Your task to perform on an android device: search for starred emails in the gmail app Image 0: 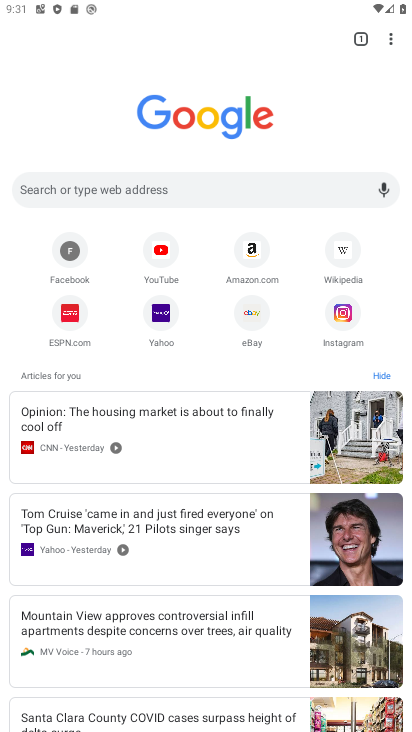
Step 0: press home button
Your task to perform on an android device: search for starred emails in the gmail app Image 1: 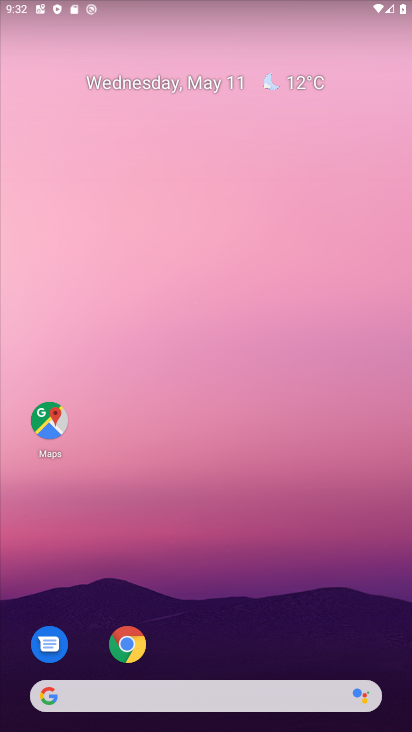
Step 1: drag from (281, 596) to (283, 339)
Your task to perform on an android device: search for starred emails in the gmail app Image 2: 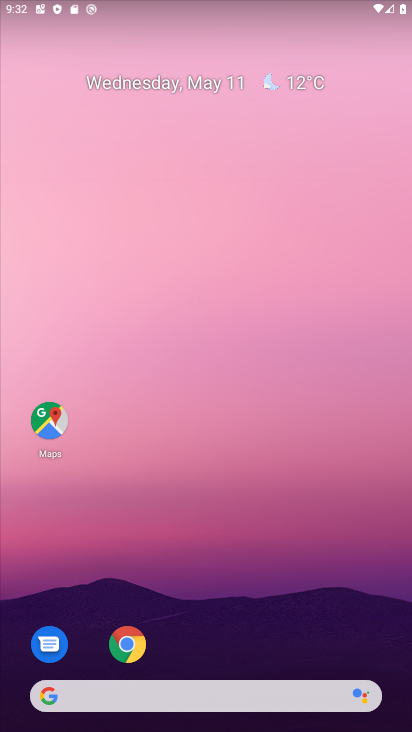
Step 2: drag from (251, 649) to (205, 87)
Your task to perform on an android device: search for starred emails in the gmail app Image 3: 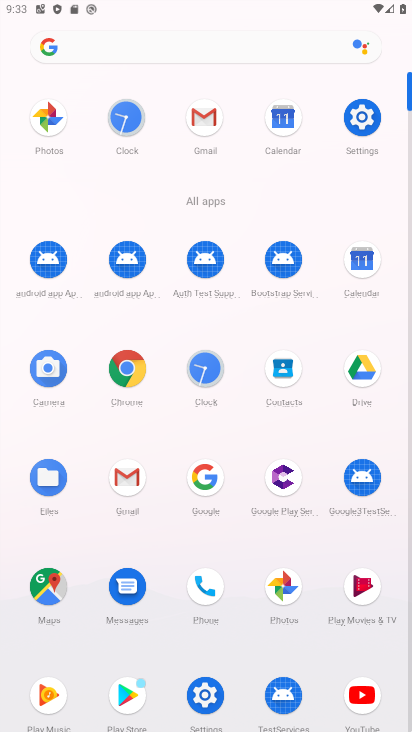
Step 3: click (356, 146)
Your task to perform on an android device: search for starred emails in the gmail app Image 4: 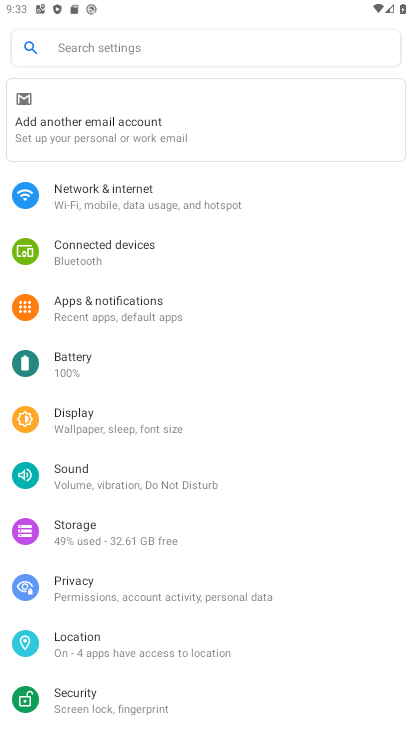
Step 4: press home button
Your task to perform on an android device: search for starred emails in the gmail app Image 5: 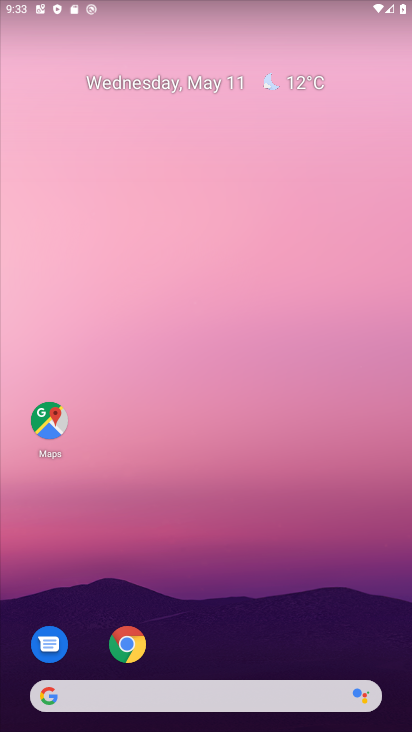
Step 5: drag from (257, 607) to (280, 215)
Your task to perform on an android device: search for starred emails in the gmail app Image 6: 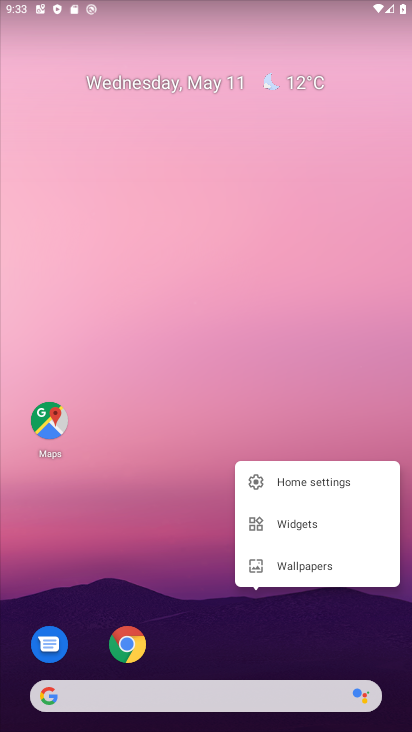
Step 6: click (147, 468)
Your task to perform on an android device: search for starred emails in the gmail app Image 7: 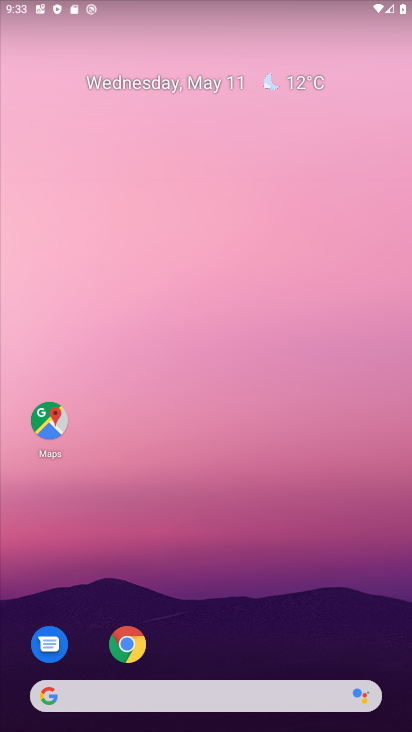
Step 7: drag from (233, 584) to (261, 155)
Your task to perform on an android device: search for starred emails in the gmail app Image 8: 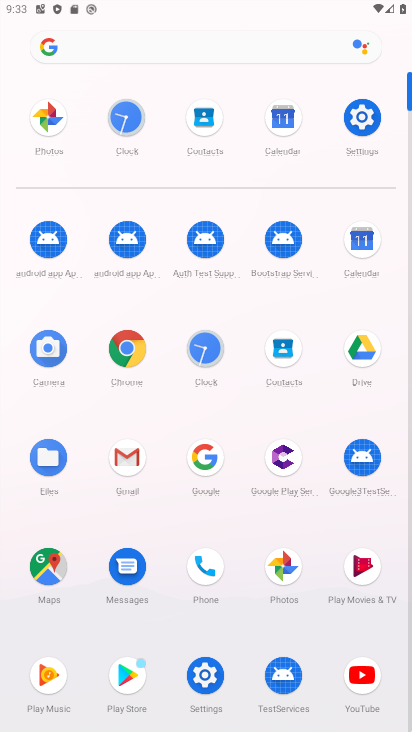
Step 8: click (135, 457)
Your task to perform on an android device: search for starred emails in the gmail app Image 9: 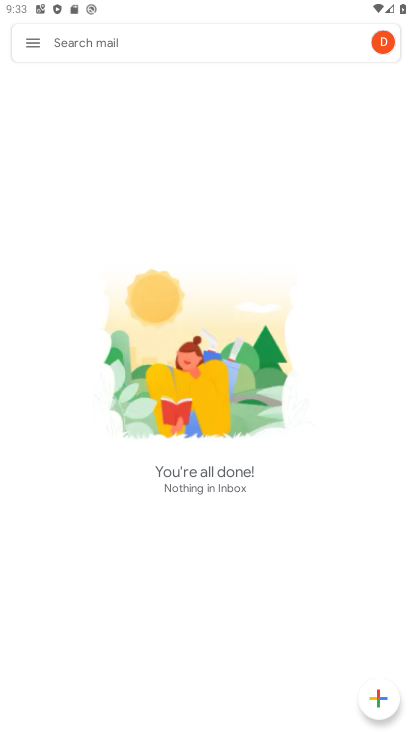
Step 9: click (26, 41)
Your task to perform on an android device: search for starred emails in the gmail app Image 10: 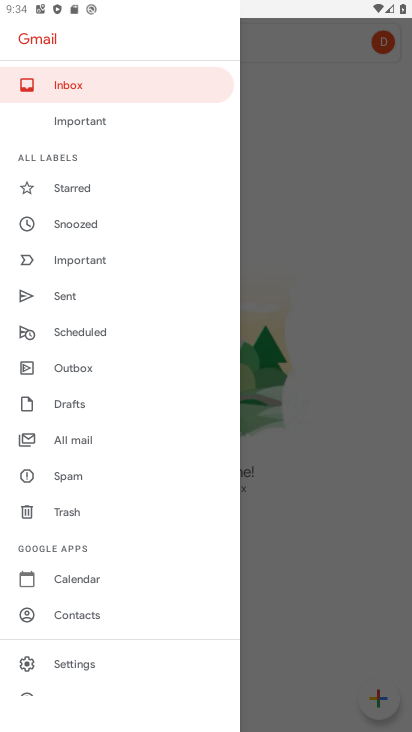
Step 10: click (64, 197)
Your task to perform on an android device: search for starred emails in the gmail app Image 11: 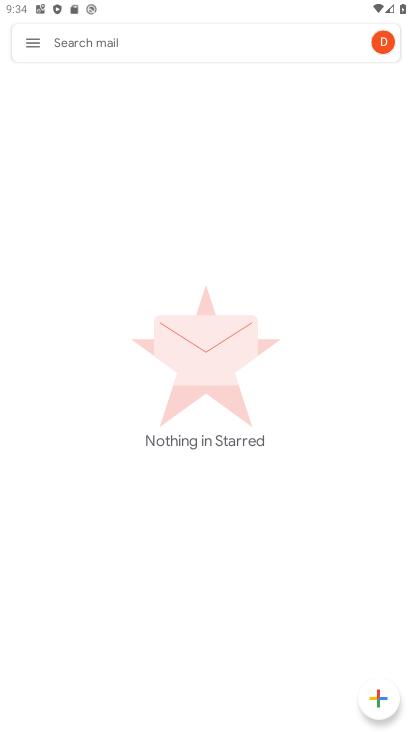
Step 11: task complete